Your task to perform on an android device: Check the news Image 0: 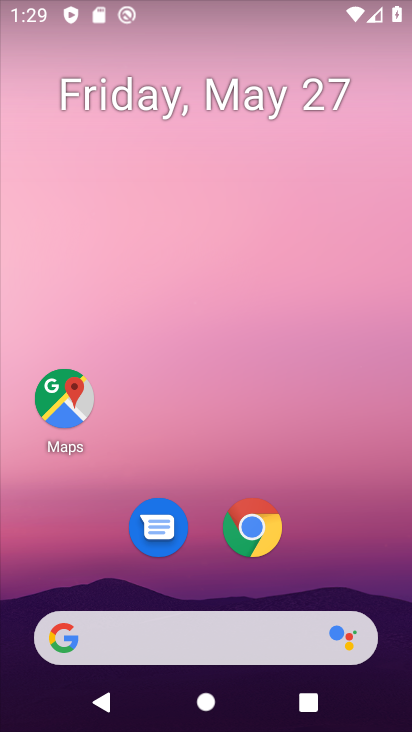
Step 0: click (245, 529)
Your task to perform on an android device: Check the news Image 1: 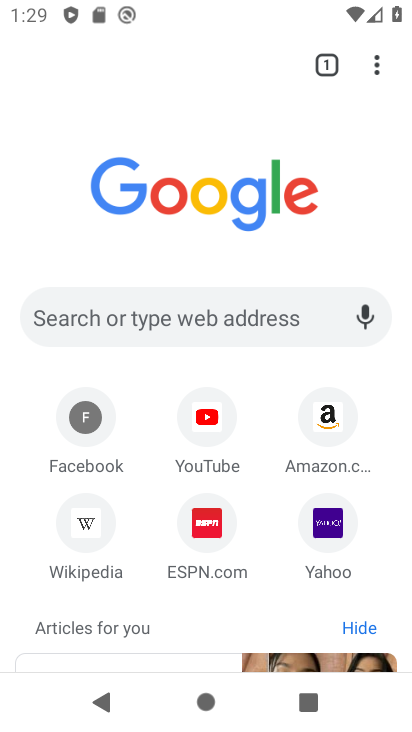
Step 1: click (75, 329)
Your task to perform on an android device: Check the news Image 2: 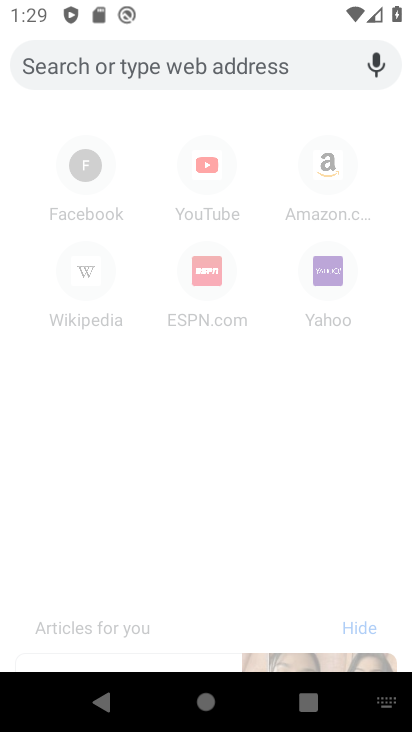
Step 2: type "news"
Your task to perform on an android device: Check the news Image 3: 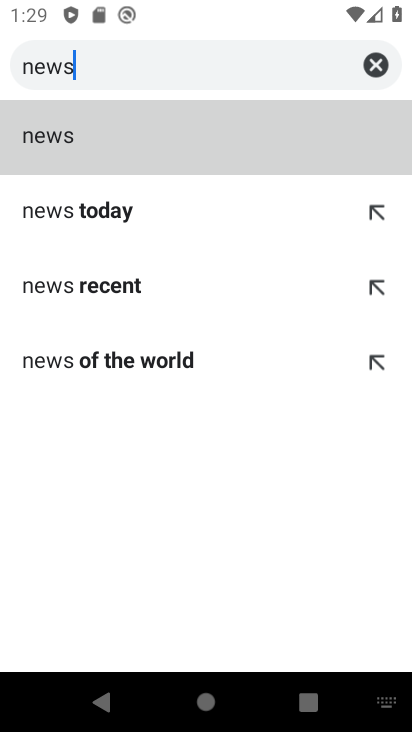
Step 3: click (118, 149)
Your task to perform on an android device: Check the news Image 4: 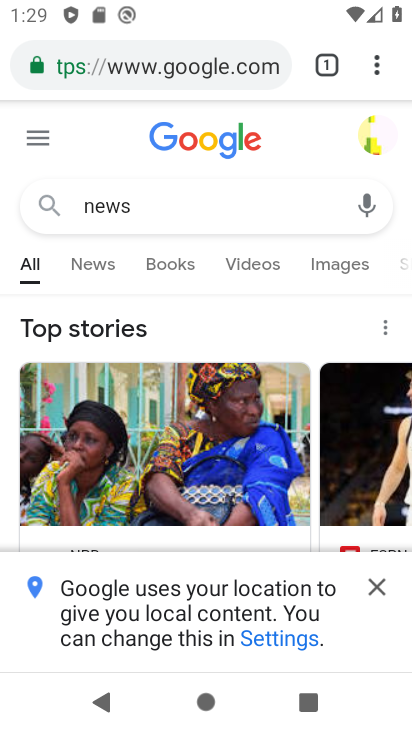
Step 4: task complete